Your task to perform on an android device: turn off airplane mode Image 0: 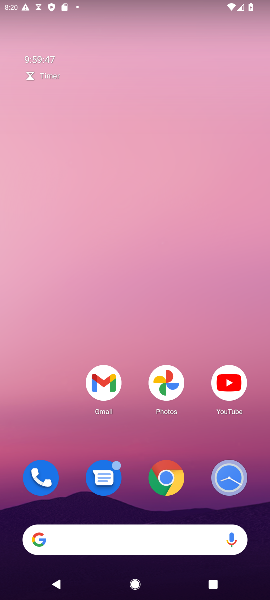
Step 0: drag from (209, 344) to (243, 8)
Your task to perform on an android device: turn off airplane mode Image 1: 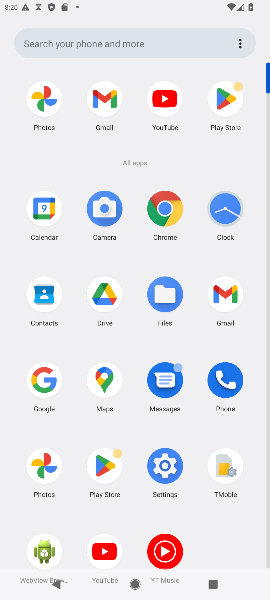
Step 1: click (165, 477)
Your task to perform on an android device: turn off airplane mode Image 2: 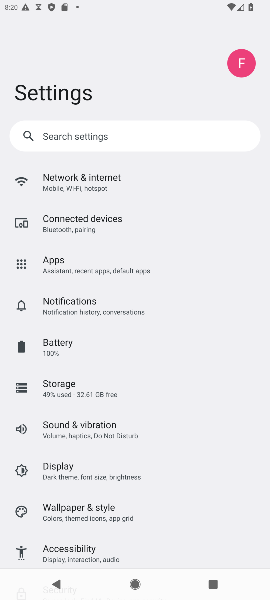
Step 2: click (139, 182)
Your task to perform on an android device: turn off airplane mode Image 3: 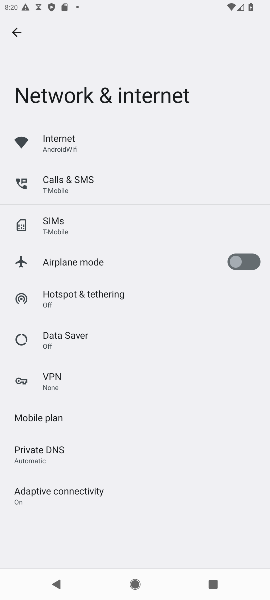
Step 3: task complete